Your task to perform on an android device: Open wifi settings Image 0: 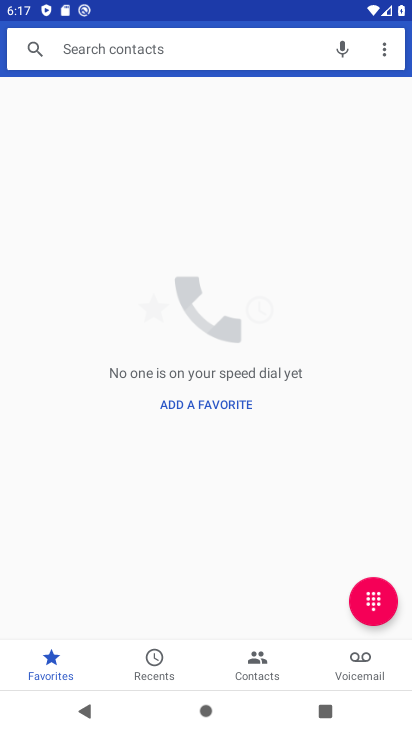
Step 0: press home button
Your task to perform on an android device: Open wifi settings Image 1: 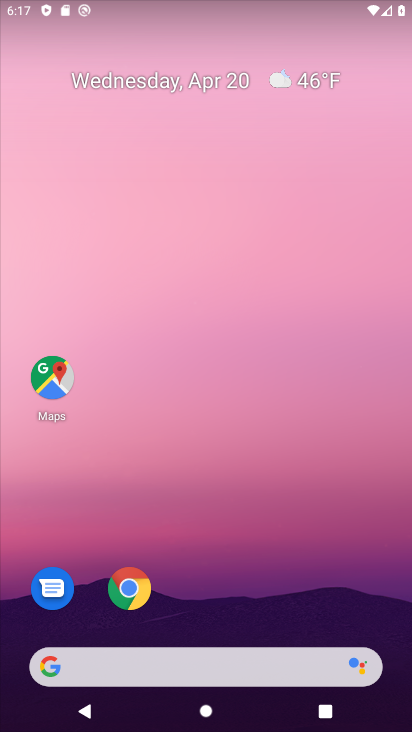
Step 1: drag from (310, 194) to (312, 357)
Your task to perform on an android device: Open wifi settings Image 2: 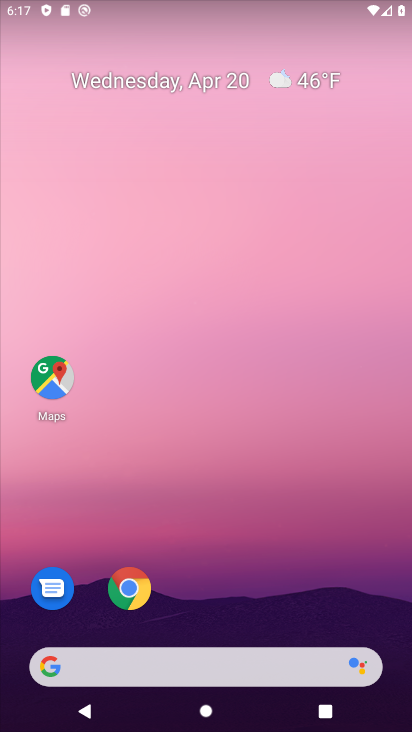
Step 2: drag from (98, 4) to (90, 70)
Your task to perform on an android device: Open wifi settings Image 3: 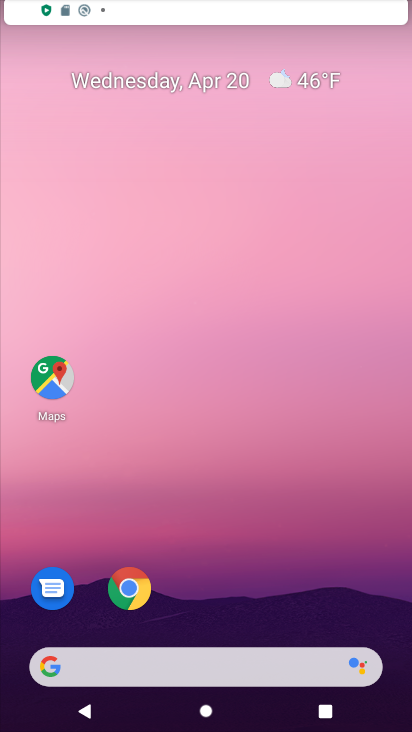
Step 3: click (73, 113)
Your task to perform on an android device: Open wifi settings Image 4: 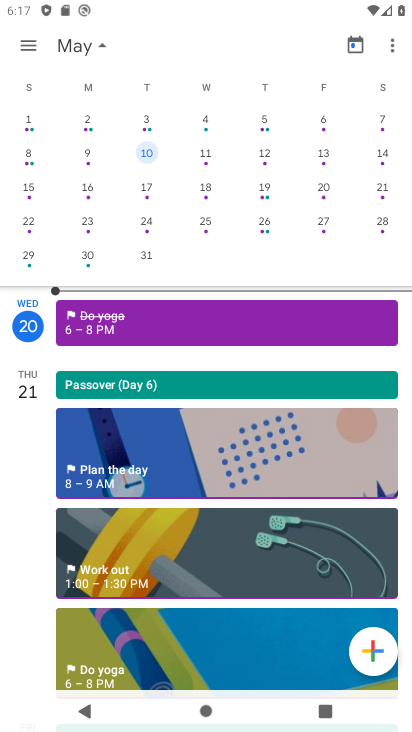
Step 4: press home button
Your task to perform on an android device: Open wifi settings Image 5: 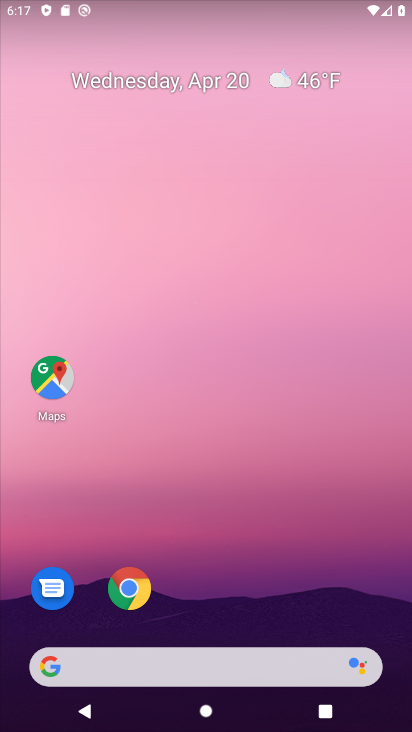
Step 5: drag from (362, 0) to (344, 367)
Your task to perform on an android device: Open wifi settings Image 6: 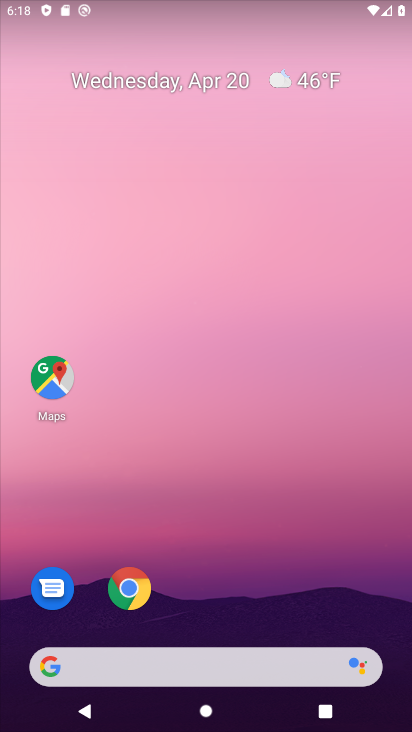
Step 6: drag from (342, 2) to (342, 631)
Your task to perform on an android device: Open wifi settings Image 7: 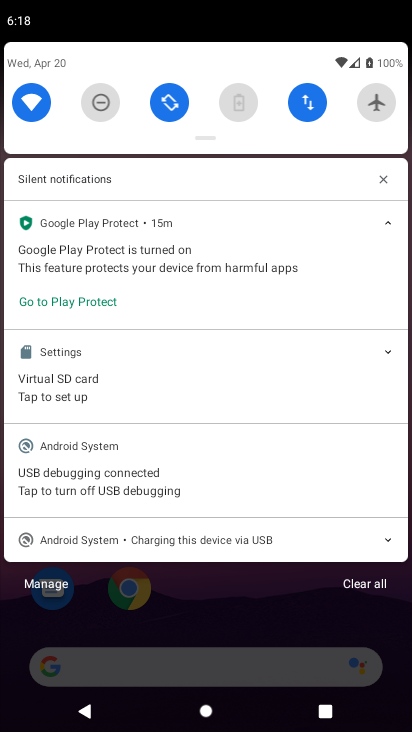
Step 7: click (28, 103)
Your task to perform on an android device: Open wifi settings Image 8: 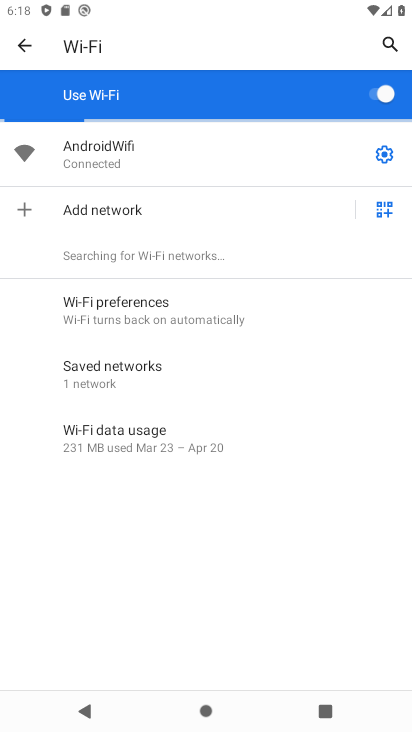
Step 8: task complete